Your task to perform on an android device: turn off improve location accuracy Image 0: 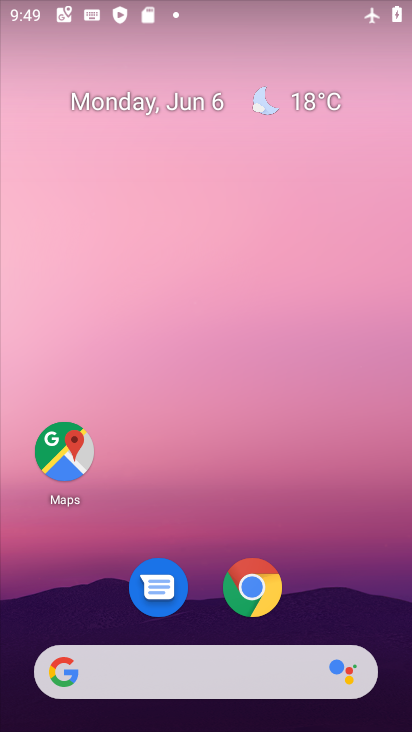
Step 0: drag from (336, 567) to (300, 150)
Your task to perform on an android device: turn off improve location accuracy Image 1: 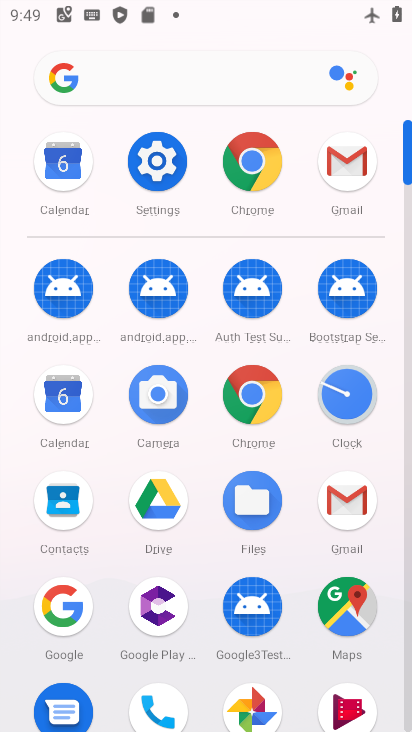
Step 1: click (147, 154)
Your task to perform on an android device: turn off improve location accuracy Image 2: 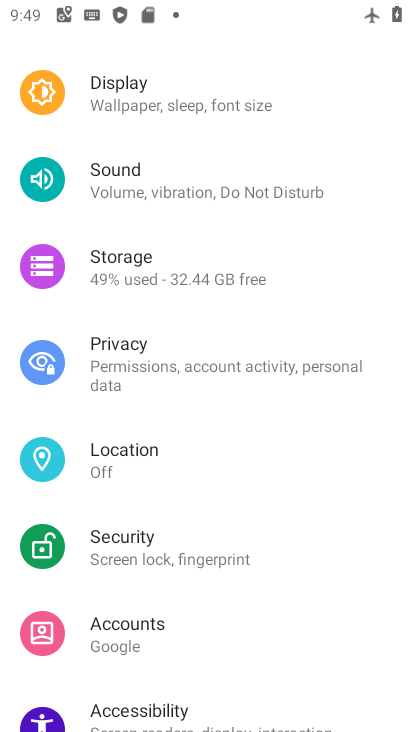
Step 2: click (138, 474)
Your task to perform on an android device: turn off improve location accuracy Image 3: 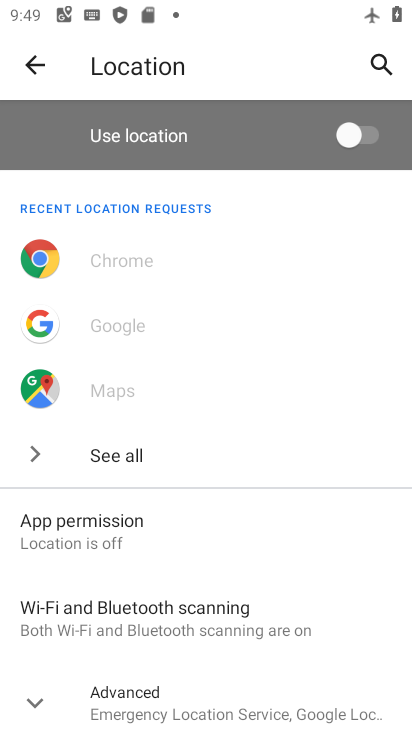
Step 3: click (174, 692)
Your task to perform on an android device: turn off improve location accuracy Image 4: 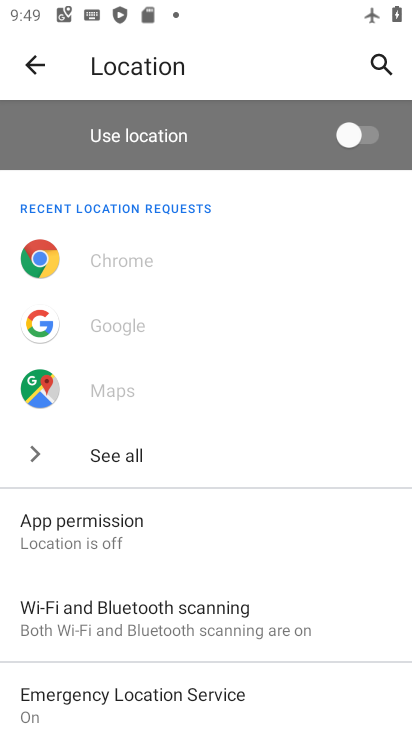
Step 4: drag from (177, 671) to (247, 256)
Your task to perform on an android device: turn off improve location accuracy Image 5: 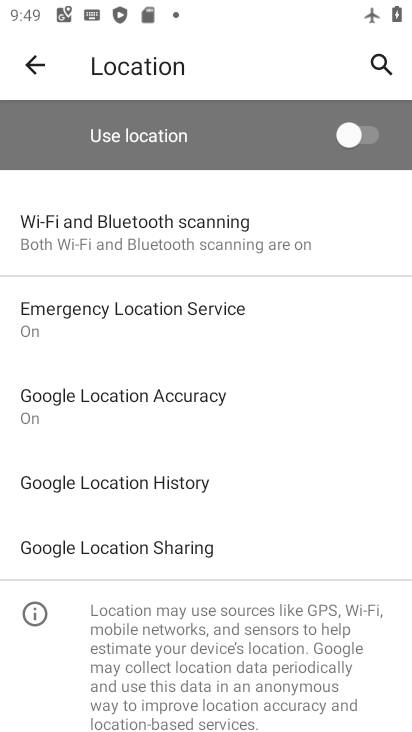
Step 5: click (173, 391)
Your task to perform on an android device: turn off improve location accuracy Image 6: 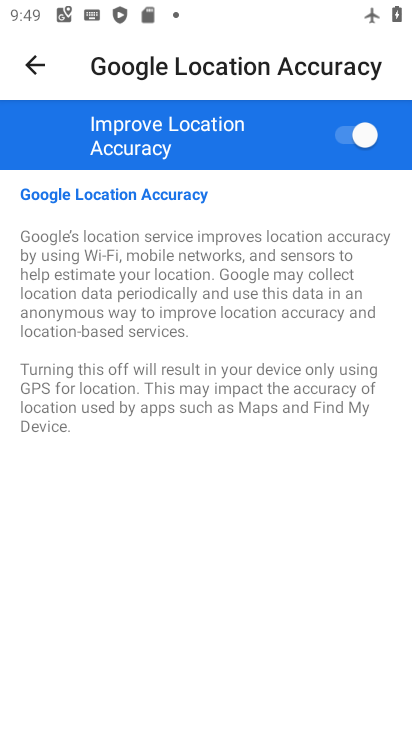
Step 6: click (350, 131)
Your task to perform on an android device: turn off improve location accuracy Image 7: 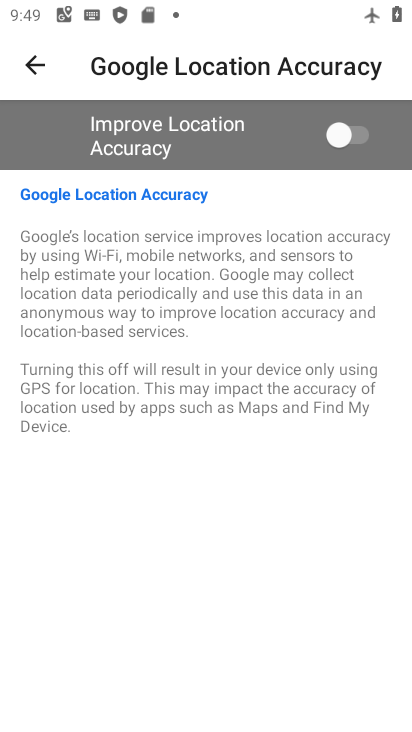
Step 7: task complete